Your task to perform on an android device: turn off airplane mode Image 0: 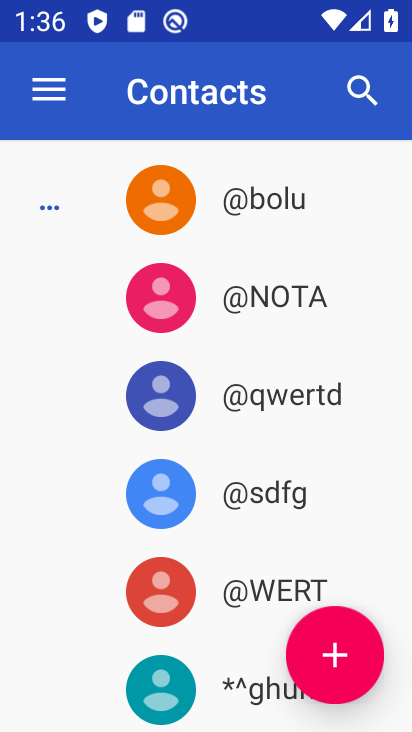
Step 0: press back button
Your task to perform on an android device: turn off airplane mode Image 1: 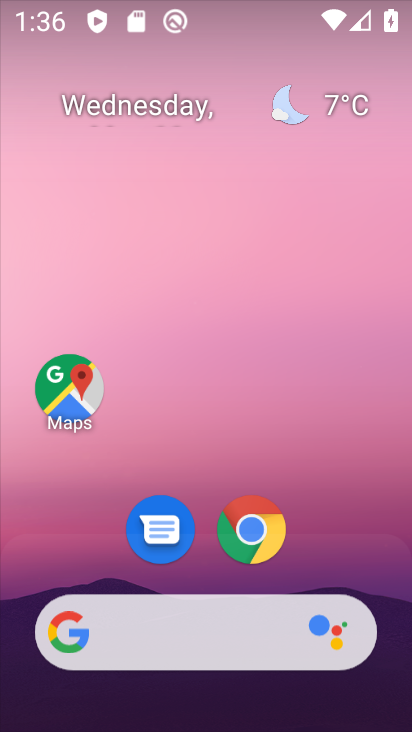
Step 1: drag from (48, 567) to (343, 25)
Your task to perform on an android device: turn off airplane mode Image 2: 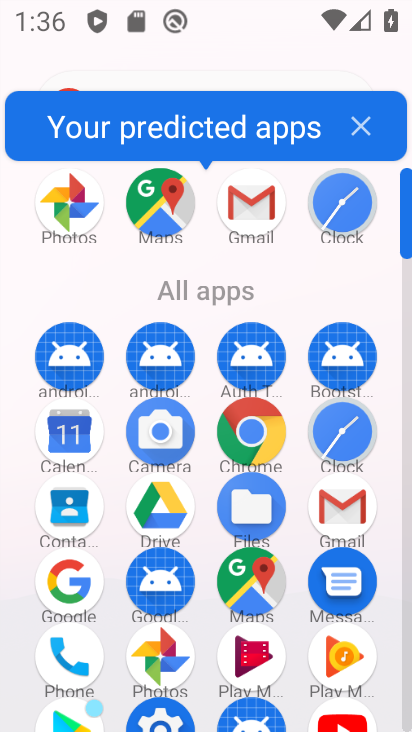
Step 2: drag from (79, 663) to (242, 189)
Your task to perform on an android device: turn off airplane mode Image 3: 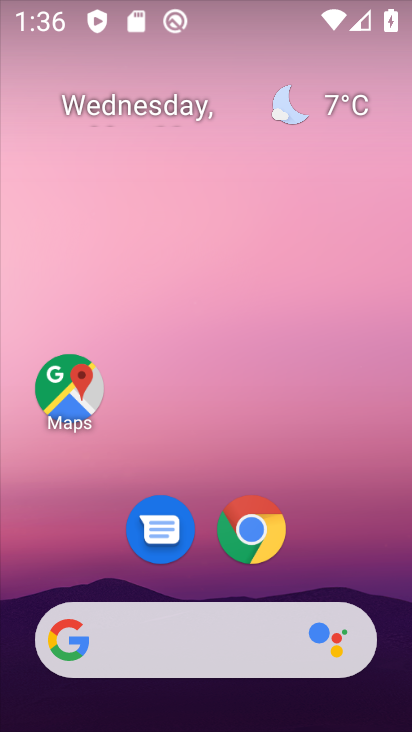
Step 3: click (158, 719)
Your task to perform on an android device: turn off airplane mode Image 4: 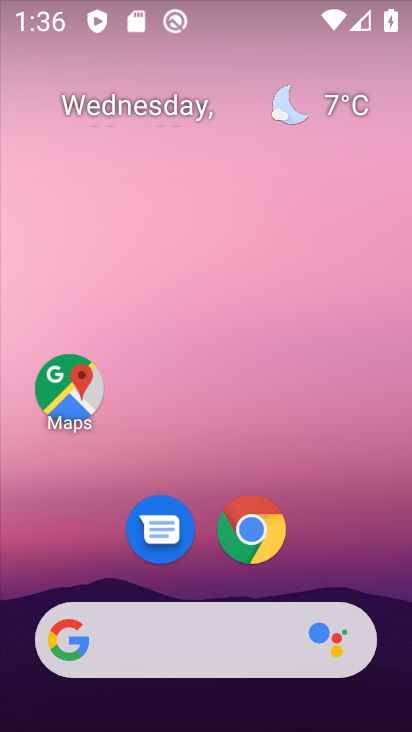
Step 4: drag from (66, 489) to (285, 42)
Your task to perform on an android device: turn off airplane mode Image 5: 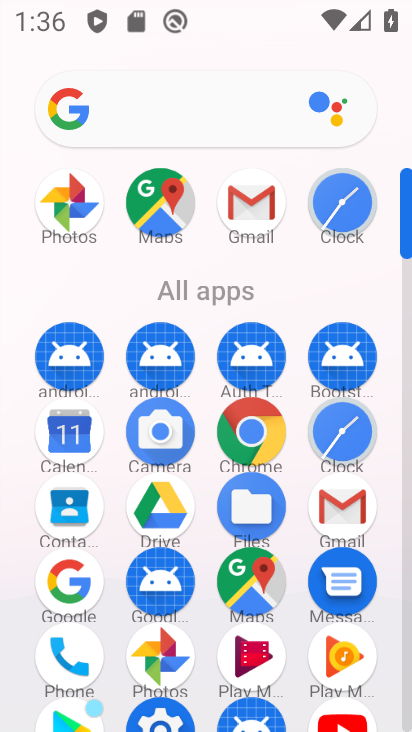
Step 5: click (143, 717)
Your task to perform on an android device: turn off airplane mode Image 6: 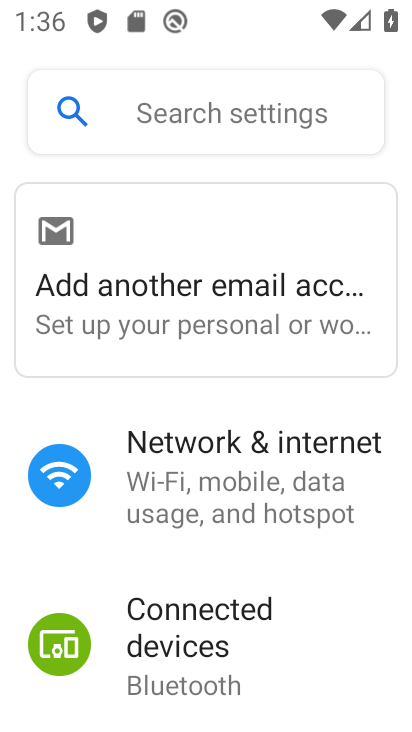
Step 6: click (165, 478)
Your task to perform on an android device: turn off airplane mode Image 7: 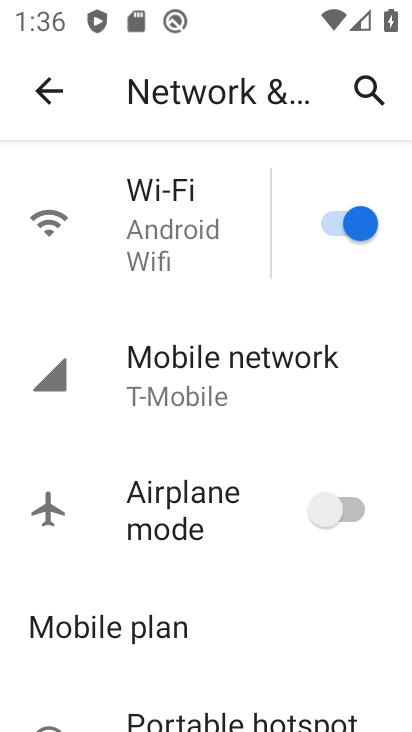
Step 7: task complete